Your task to perform on an android device: snooze an email in the gmail app Image 0: 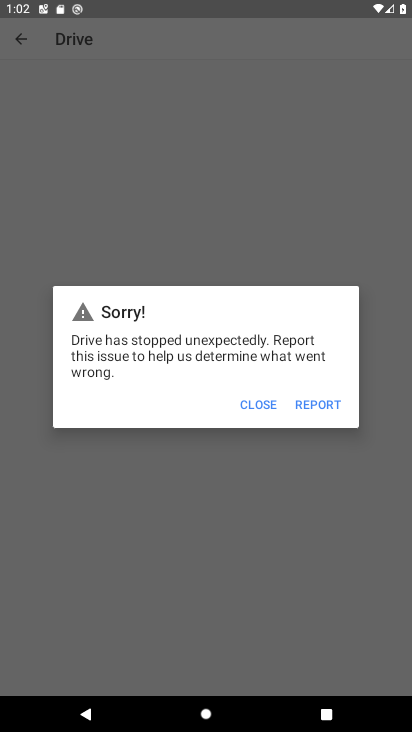
Step 0: press home button
Your task to perform on an android device: snooze an email in the gmail app Image 1: 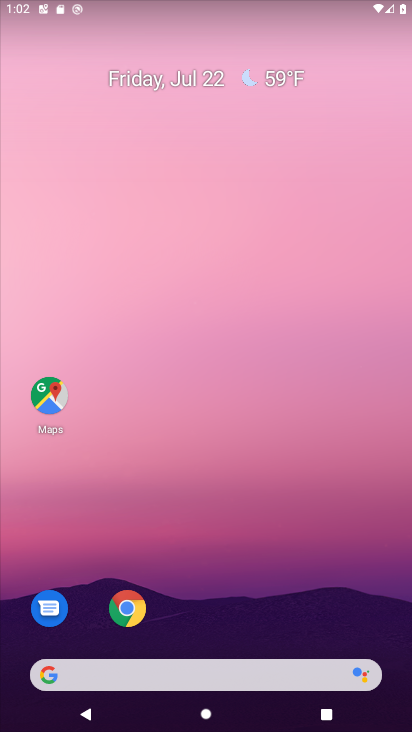
Step 1: drag from (225, 576) to (260, 115)
Your task to perform on an android device: snooze an email in the gmail app Image 2: 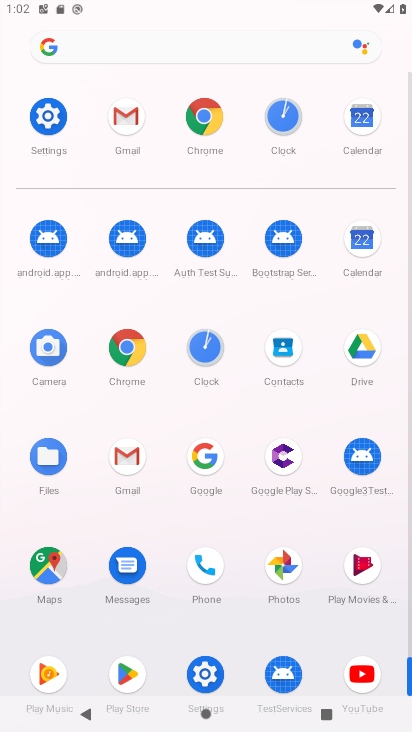
Step 2: click (122, 468)
Your task to perform on an android device: snooze an email in the gmail app Image 3: 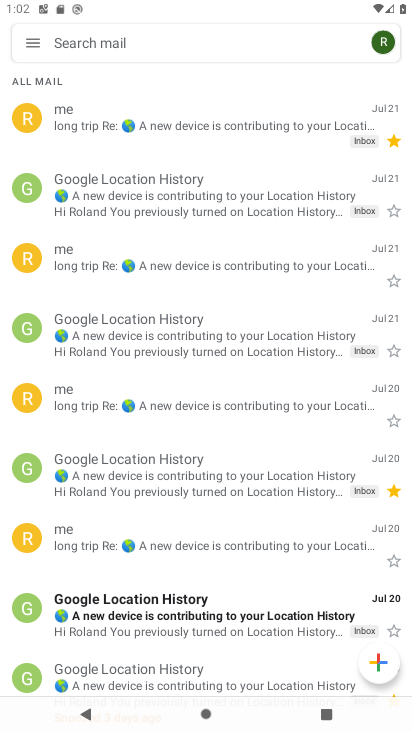
Step 3: click (30, 186)
Your task to perform on an android device: snooze an email in the gmail app Image 4: 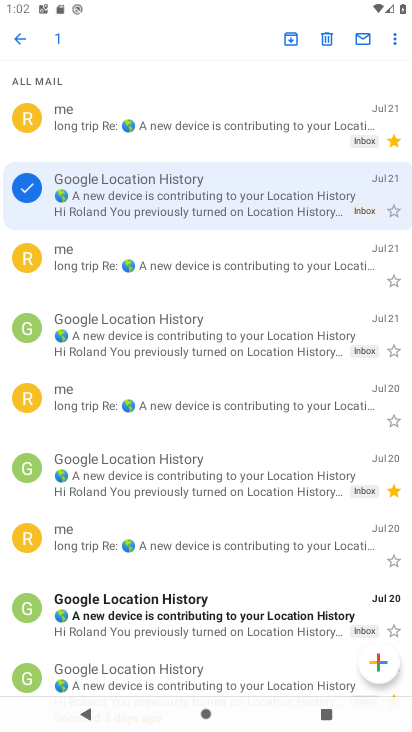
Step 4: click (391, 36)
Your task to perform on an android device: snooze an email in the gmail app Image 5: 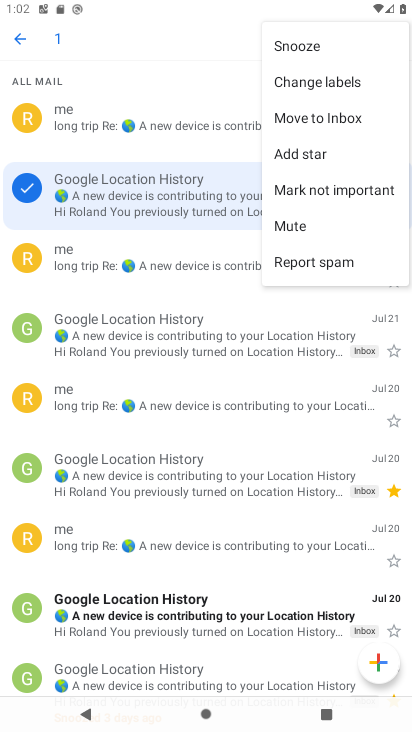
Step 5: click (298, 47)
Your task to perform on an android device: snooze an email in the gmail app Image 6: 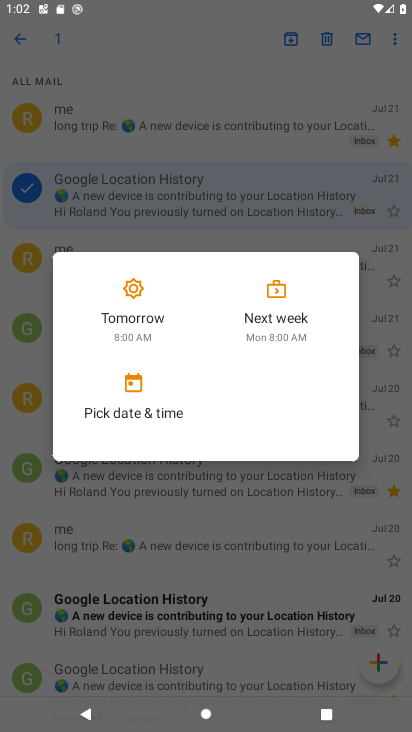
Step 6: click (151, 292)
Your task to perform on an android device: snooze an email in the gmail app Image 7: 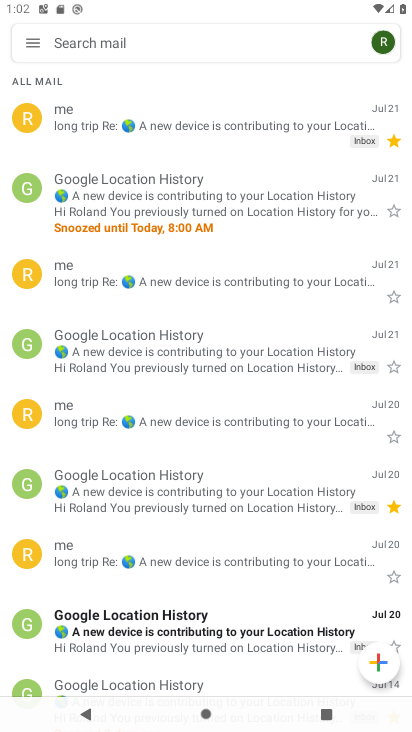
Step 7: task complete